Your task to perform on an android device: Is it going to rain this weekend? Image 0: 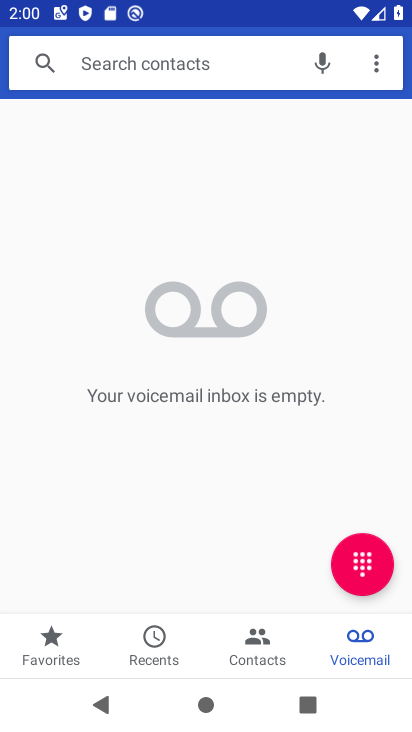
Step 0: press home button
Your task to perform on an android device: Is it going to rain this weekend? Image 1: 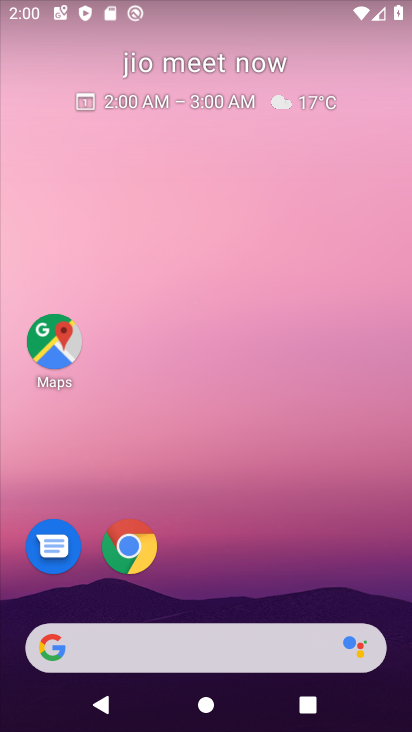
Step 1: drag from (302, 583) to (247, 65)
Your task to perform on an android device: Is it going to rain this weekend? Image 2: 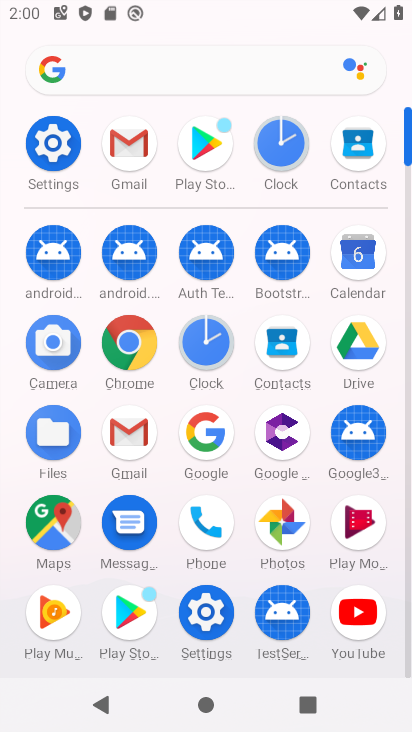
Step 2: click (200, 78)
Your task to perform on an android device: Is it going to rain this weekend? Image 3: 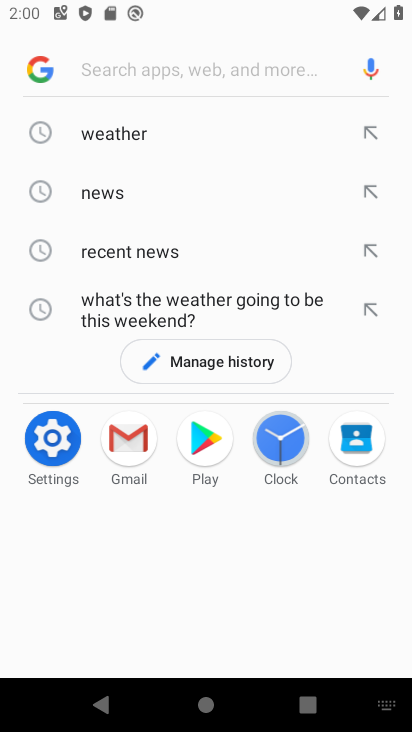
Step 3: click (156, 126)
Your task to perform on an android device: Is it going to rain this weekend? Image 4: 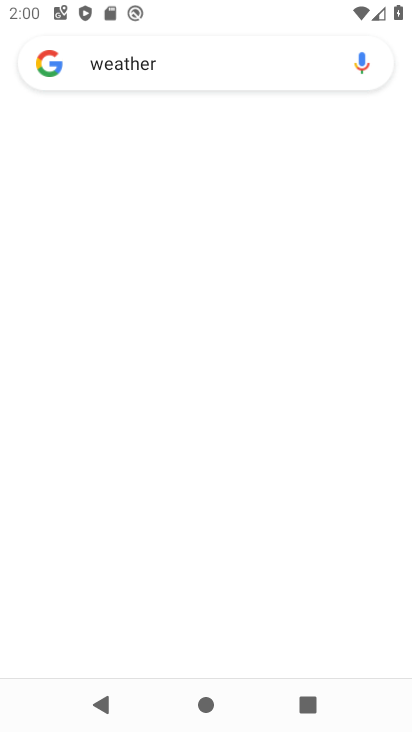
Step 4: task complete